Your task to perform on an android device: find snoozed emails in the gmail app Image 0: 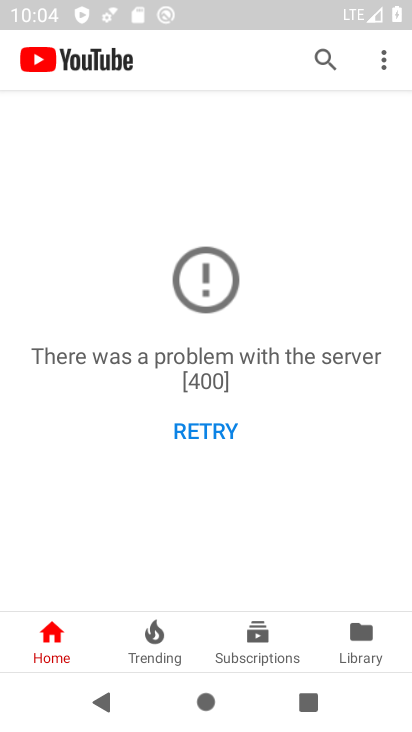
Step 0: press home button
Your task to perform on an android device: find snoozed emails in the gmail app Image 1: 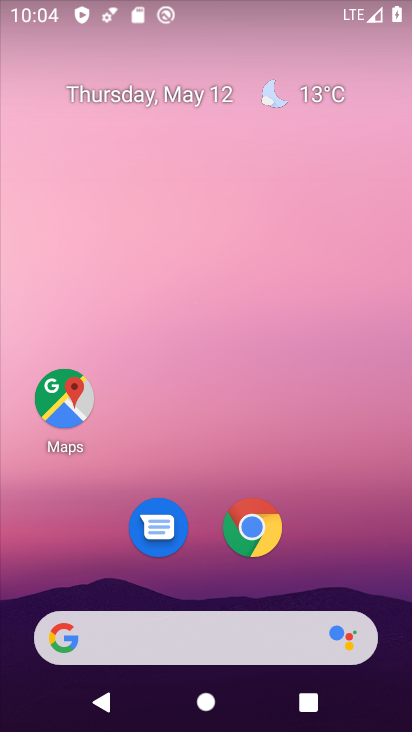
Step 1: drag from (316, 562) to (178, 56)
Your task to perform on an android device: find snoozed emails in the gmail app Image 2: 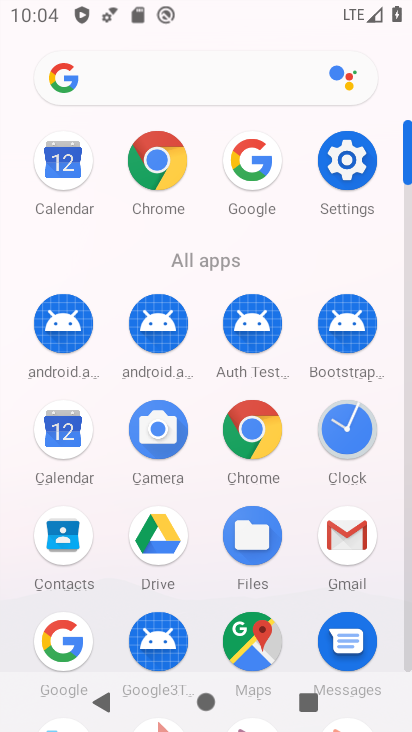
Step 2: drag from (216, 510) to (215, 329)
Your task to perform on an android device: find snoozed emails in the gmail app Image 3: 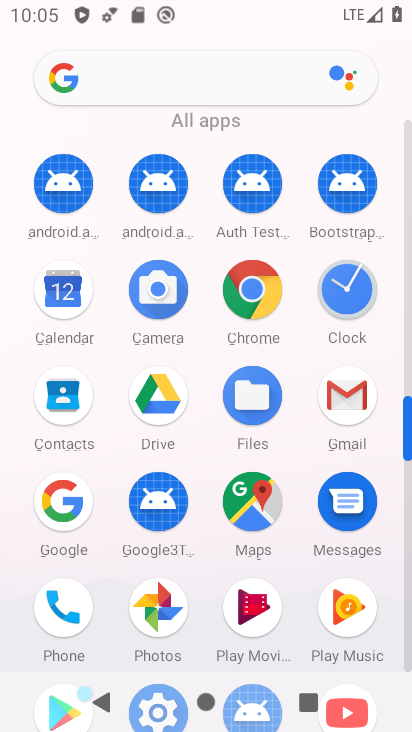
Step 3: click (345, 389)
Your task to perform on an android device: find snoozed emails in the gmail app Image 4: 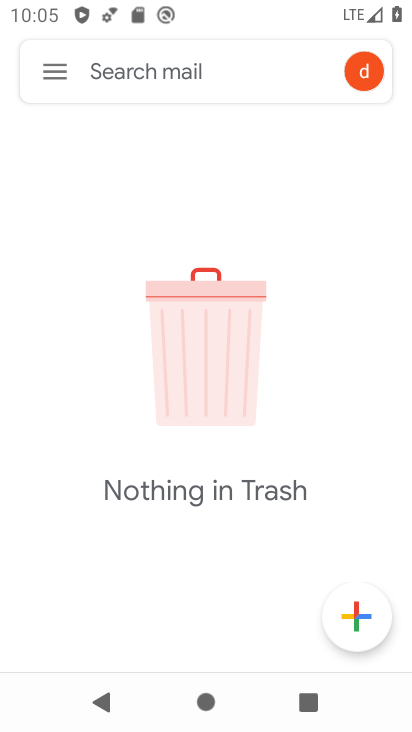
Step 4: click (52, 67)
Your task to perform on an android device: find snoozed emails in the gmail app Image 5: 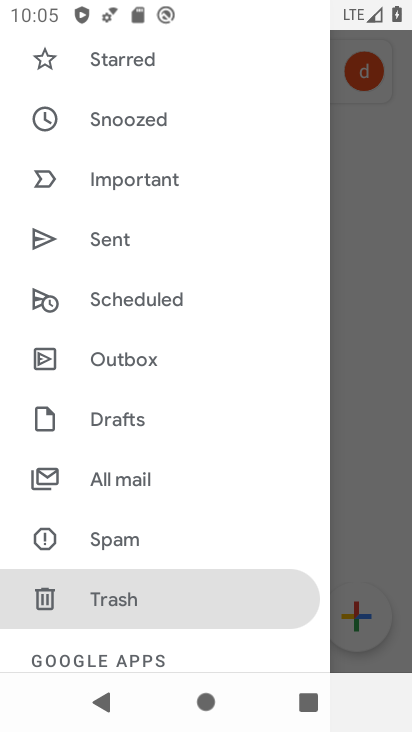
Step 5: drag from (180, 260) to (175, 407)
Your task to perform on an android device: find snoozed emails in the gmail app Image 6: 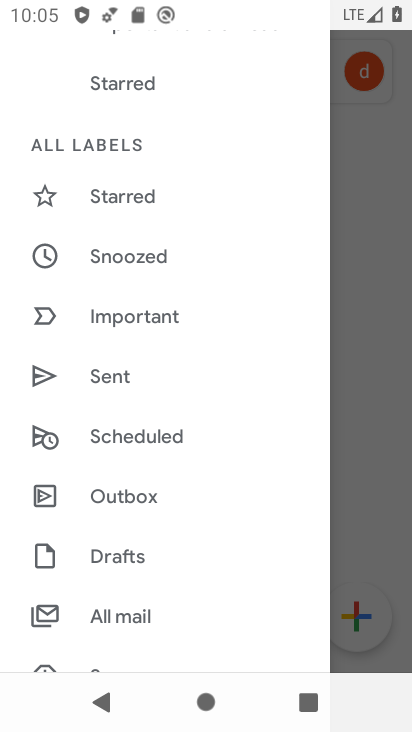
Step 6: click (124, 253)
Your task to perform on an android device: find snoozed emails in the gmail app Image 7: 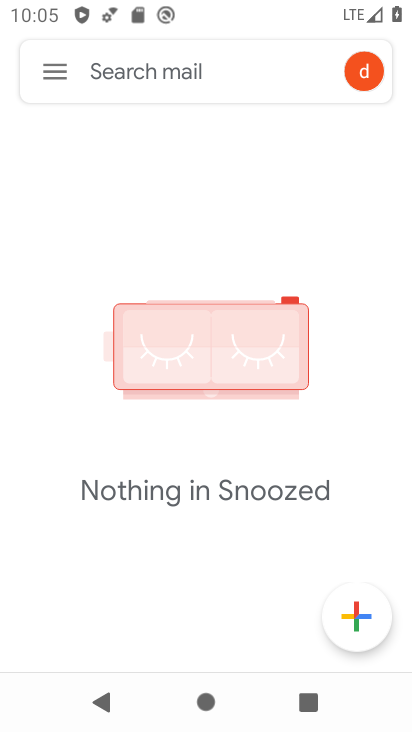
Step 7: click (47, 74)
Your task to perform on an android device: find snoozed emails in the gmail app Image 8: 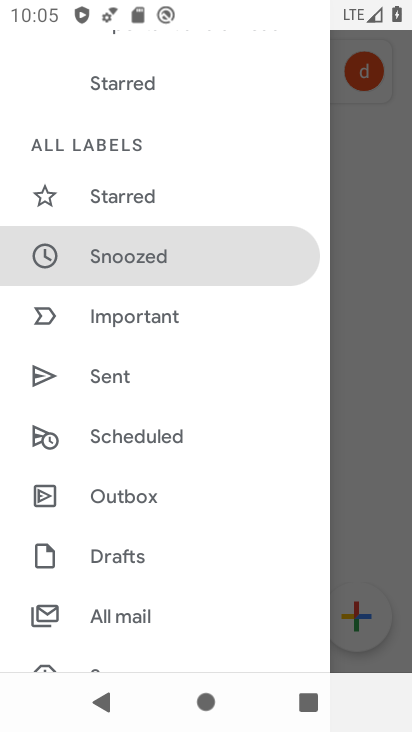
Step 8: drag from (146, 150) to (157, 252)
Your task to perform on an android device: find snoozed emails in the gmail app Image 9: 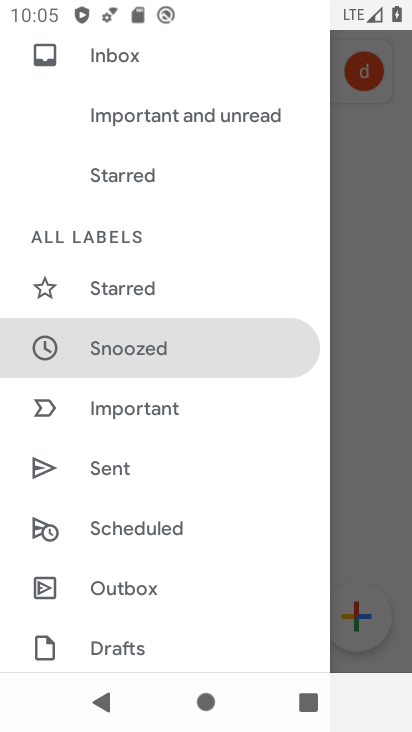
Step 9: drag from (194, 143) to (199, 233)
Your task to perform on an android device: find snoozed emails in the gmail app Image 10: 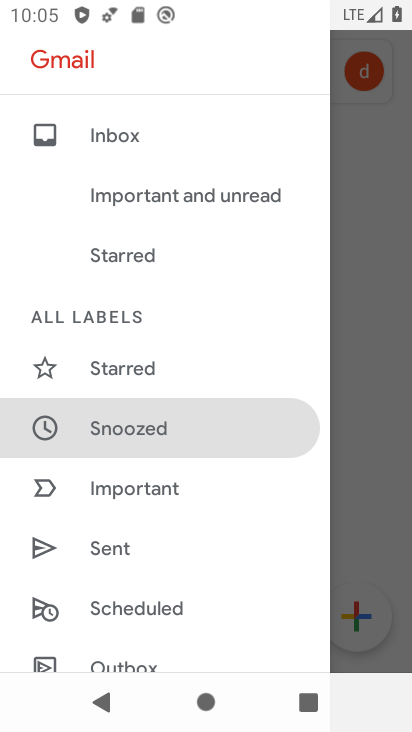
Step 10: drag from (145, 535) to (144, 390)
Your task to perform on an android device: find snoozed emails in the gmail app Image 11: 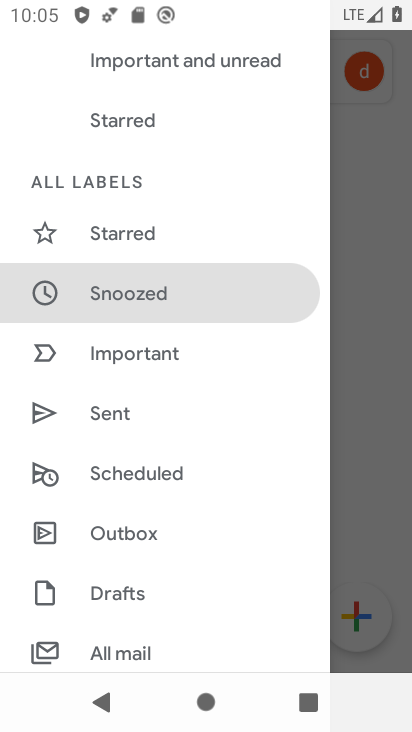
Step 11: drag from (157, 562) to (133, 424)
Your task to perform on an android device: find snoozed emails in the gmail app Image 12: 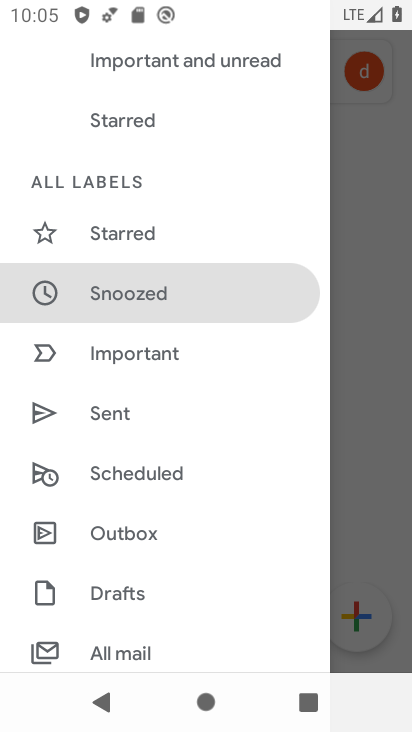
Step 12: drag from (193, 215) to (261, 381)
Your task to perform on an android device: find snoozed emails in the gmail app Image 13: 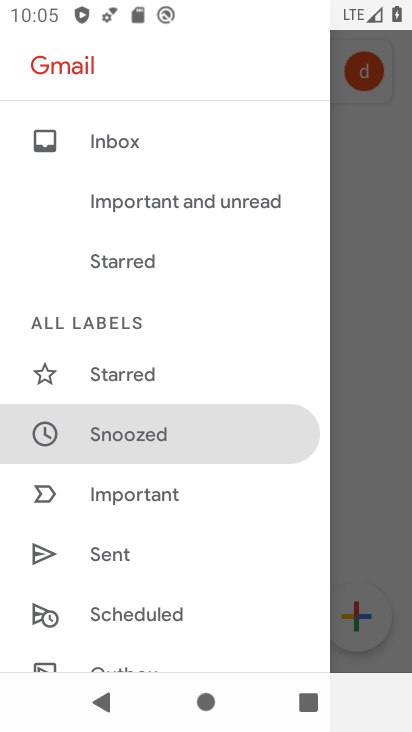
Step 13: click (123, 150)
Your task to perform on an android device: find snoozed emails in the gmail app Image 14: 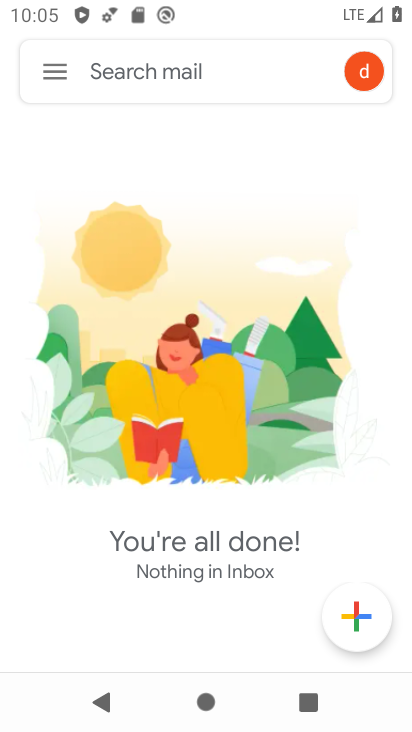
Step 14: task complete